Your task to perform on an android device: Open Reddit.com Image 0: 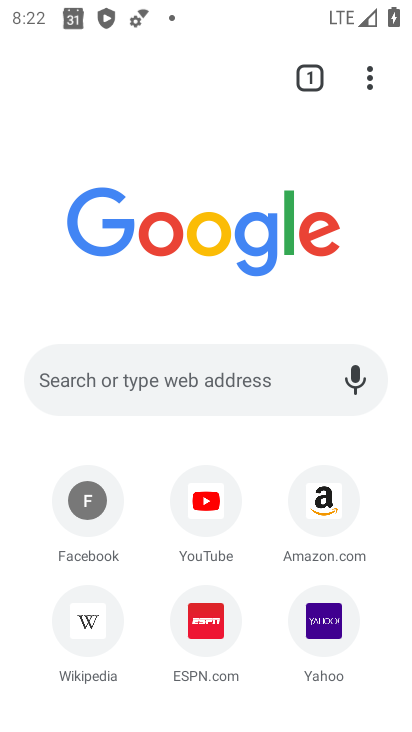
Step 0: drag from (372, 651) to (360, 246)
Your task to perform on an android device: Open Reddit.com Image 1: 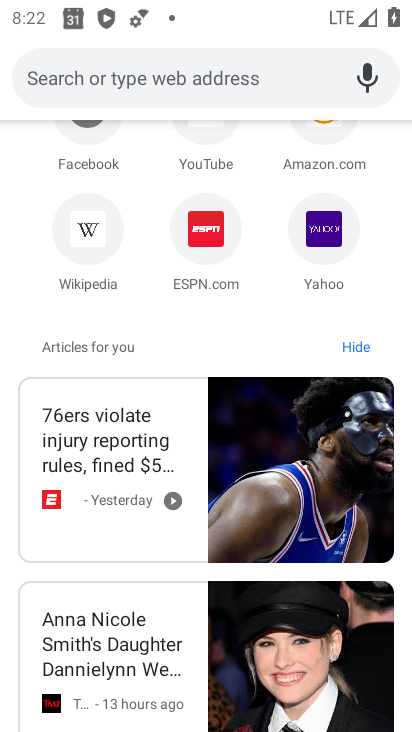
Step 1: drag from (279, 338) to (241, 731)
Your task to perform on an android device: Open Reddit.com Image 2: 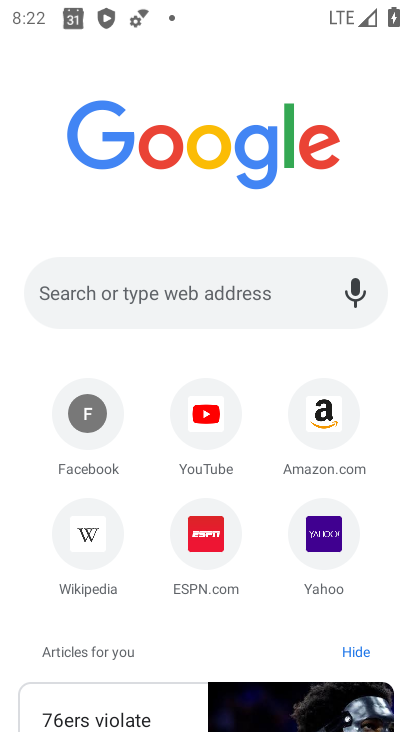
Step 2: click (152, 303)
Your task to perform on an android device: Open Reddit.com Image 3: 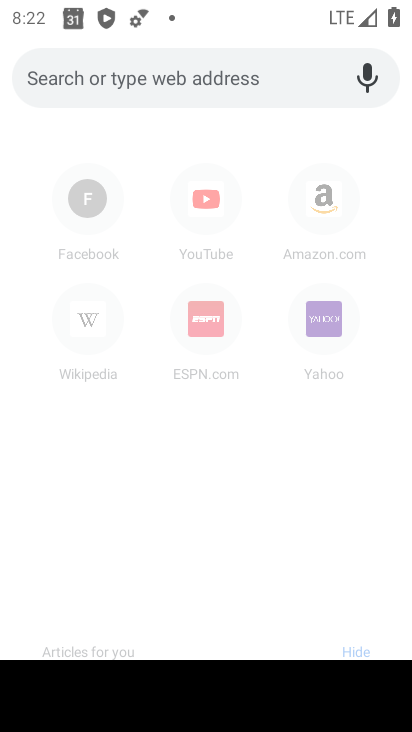
Step 3: type "reddit"
Your task to perform on an android device: Open Reddit.com Image 4: 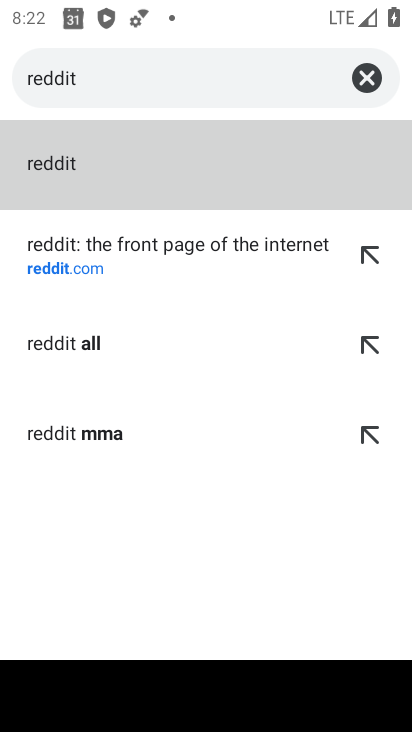
Step 4: click (196, 245)
Your task to perform on an android device: Open Reddit.com Image 5: 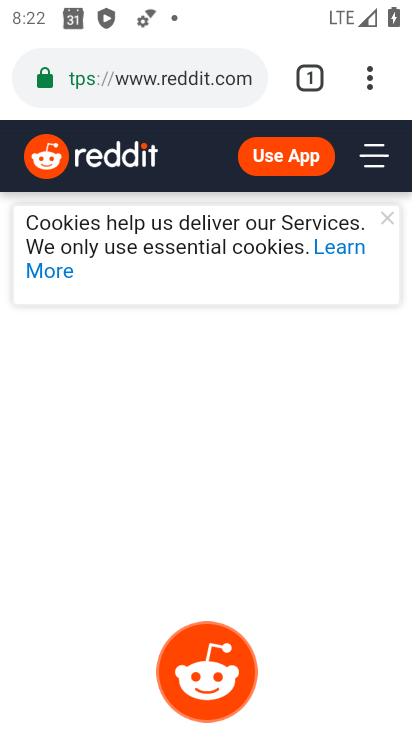
Step 5: task complete